Your task to perform on an android device: Open Yahoo.com Image 0: 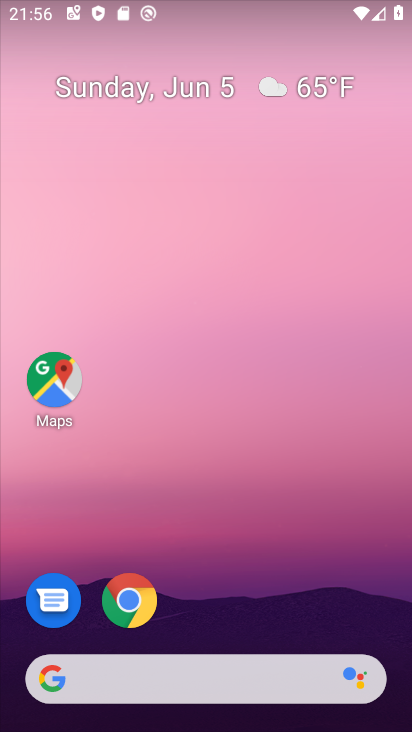
Step 0: click (127, 602)
Your task to perform on an android device: Open Yahoo.com Image 1: 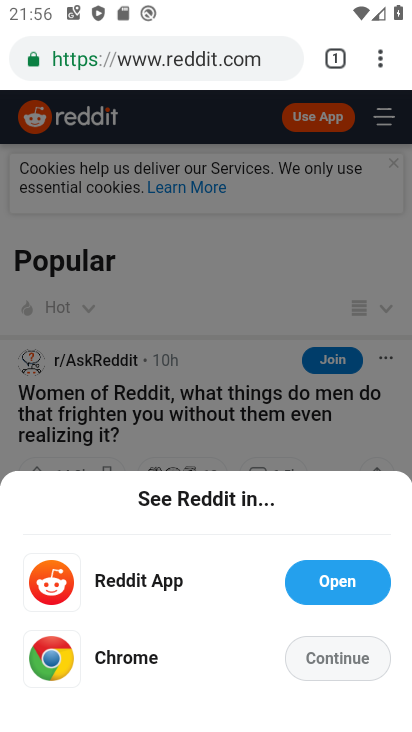
Step 1: click (176, 62)
Your task to perform on an android device: Open Yahoo.com Image 2: 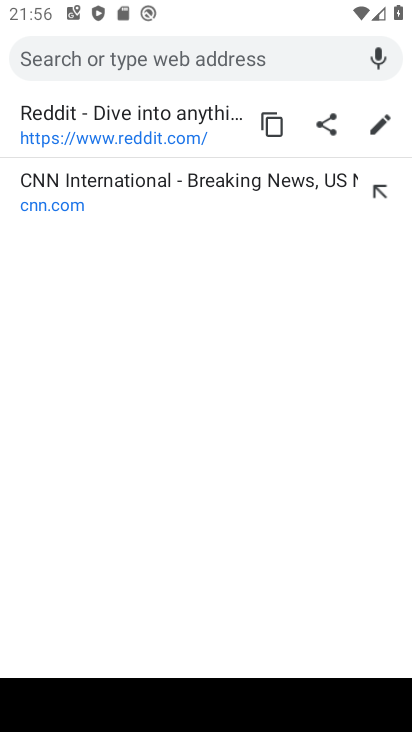
Step 2: type "yahoo.com"
Your task to perform on an android device: Open Yahoo.com Image 3: 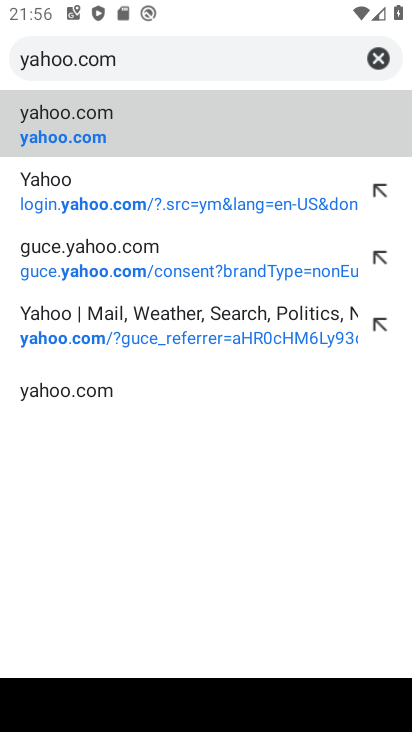
Step 3: click (97, 139)
Your task to perform on an android device: Open Yahoo.com Image 4: 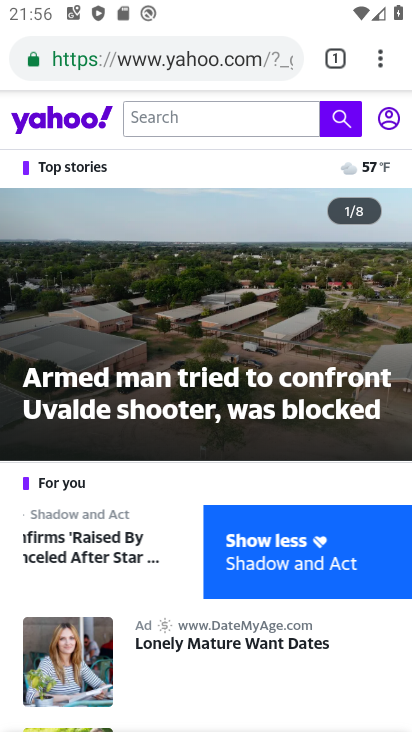
Step 4: task complete